Your task to perform on an android device: Open privacy settings Image 0: 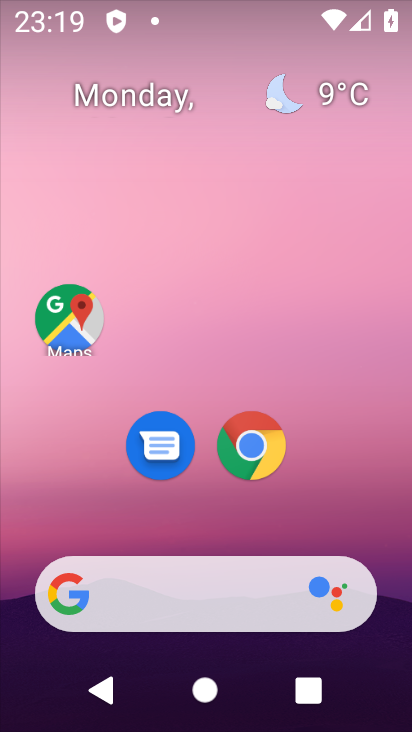
Step 0: drag from (190, 567) to (230, 38)
Your task to perform on an android device: Open privacy settings Image 1: 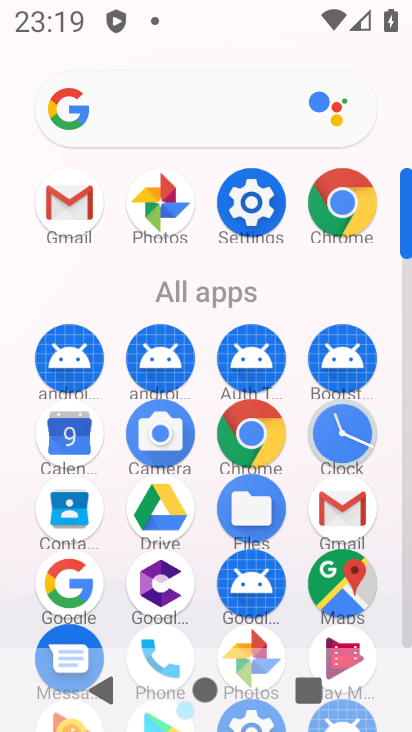
Step 1: click (261, 212)
Your task to perform on an android device: Open privacy settings Image 2: 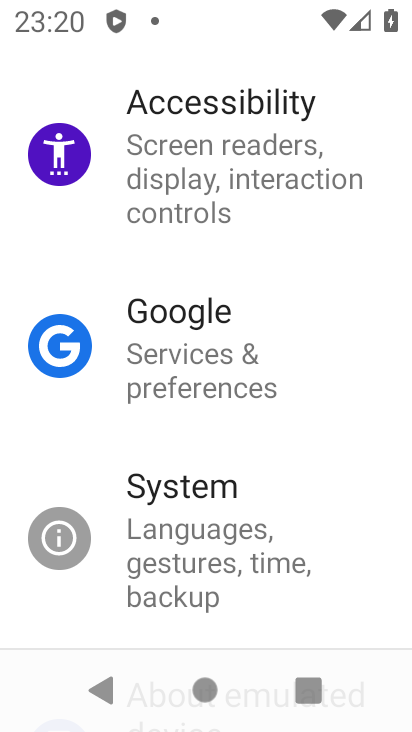
Step 2: drag from (169, 106) to (218, 643)
Your task to perform on an android device: Open privacy settings Image 3: 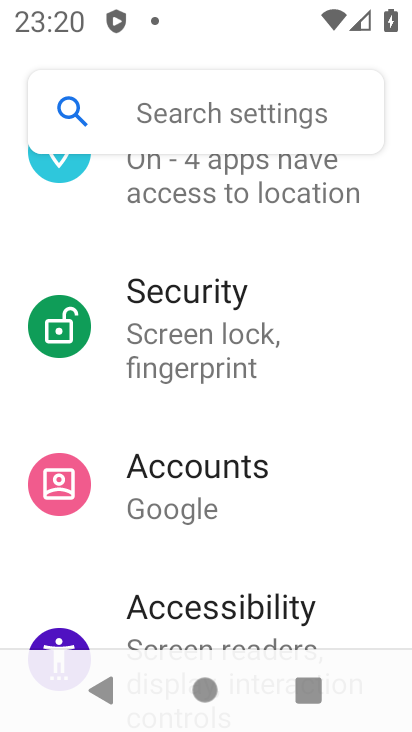
Step 3: drag from (197, 193) to (210, 665)
Your task to perform on an android device: Open privacy settings Image 4: 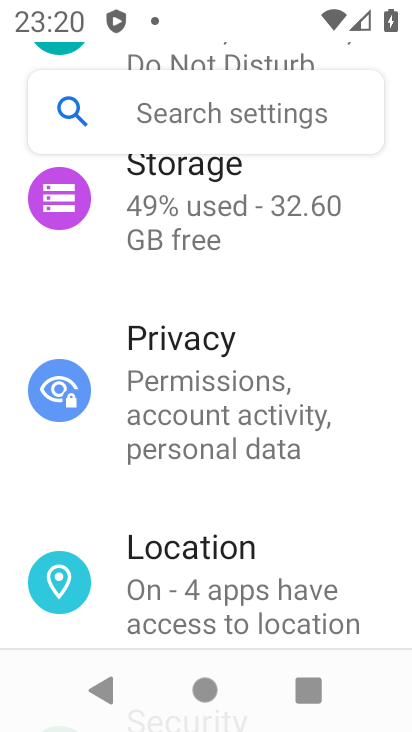
Step 4: click (198, 438)
Your task to perform on an android device: Open privacy settings Image 5: 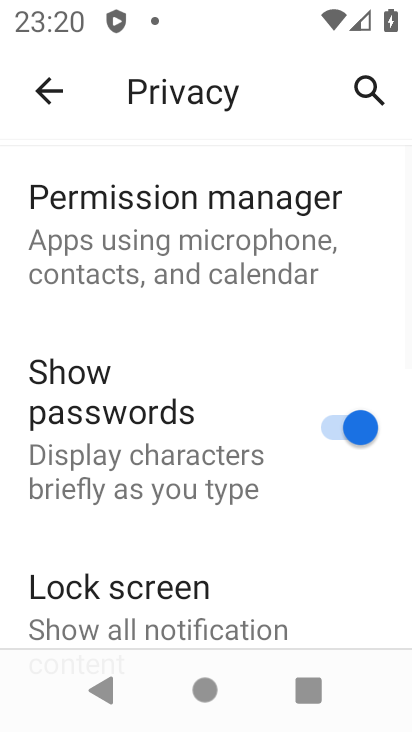
Step 5: task complete